Your task to perform on an android device: change timer sound Image 0: 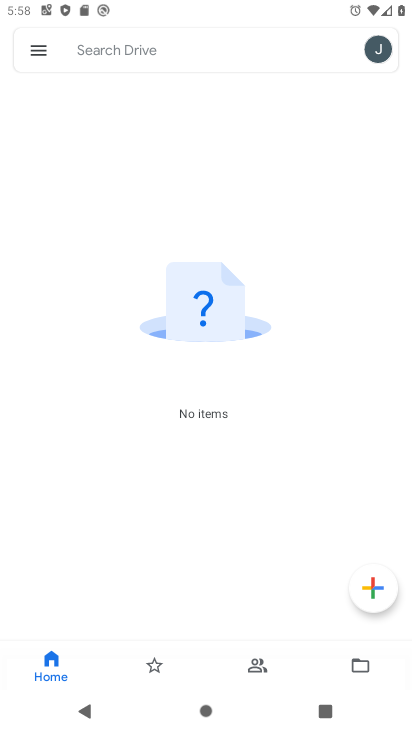
Step 0: press home button
Your task to perform on an android device: change timer sound Image 1: 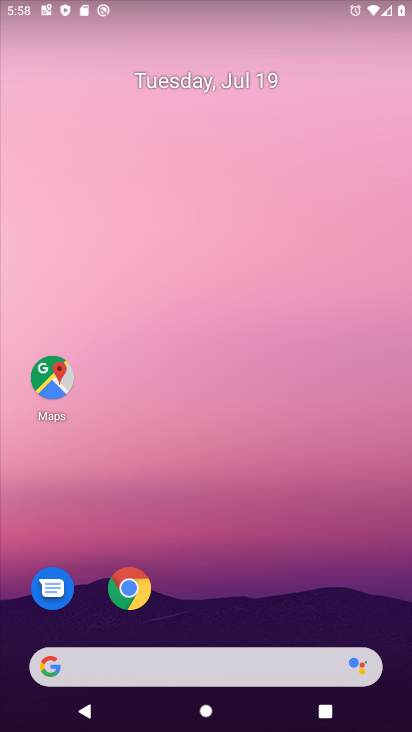
Step 1: drag from (202, 611) to (141, 4)
Your task to perform on an android device: change timer sound Image 2: 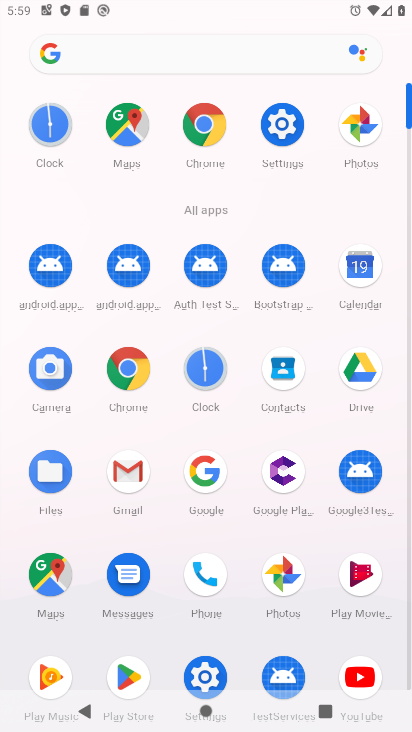
Step 2: click (199, 354)
Your task to perform on an android device: change timer sound Image 3: 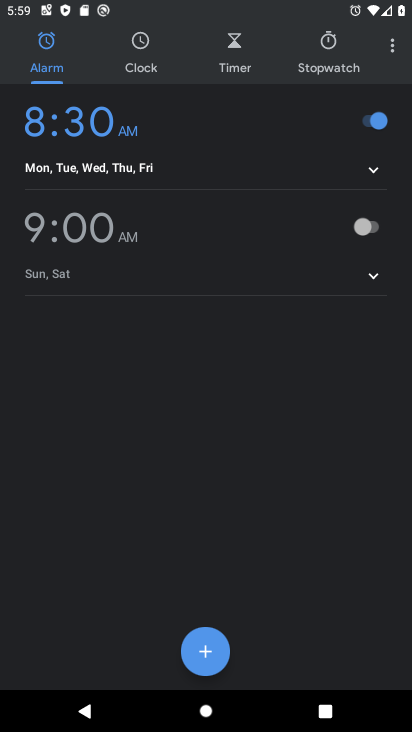
Step 3: click (395, 59)
Your task to perform on an android device: change timer sound Image 4: 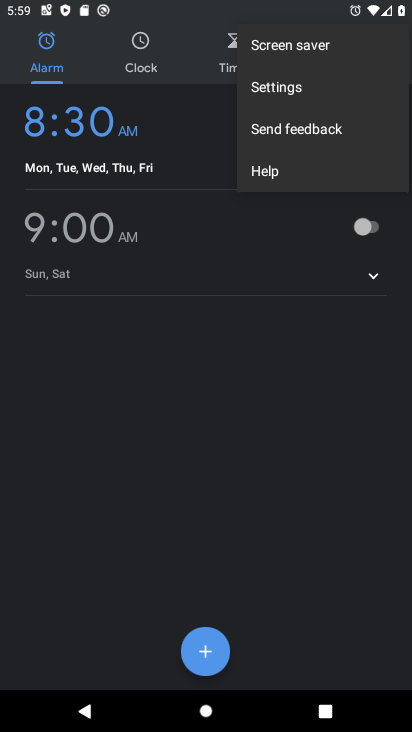
Step 4: click (320, 90)
Your task to perform on an android device: change timer sound Image 5: 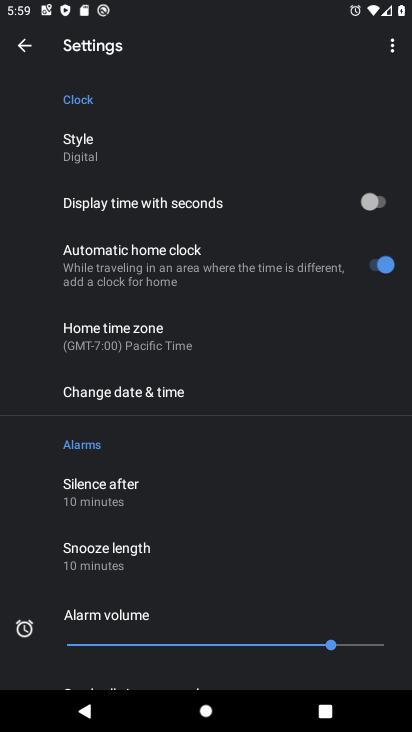
Step 5: click (301, 96)
Your task to perform on an android device: change timer sound Image 6: 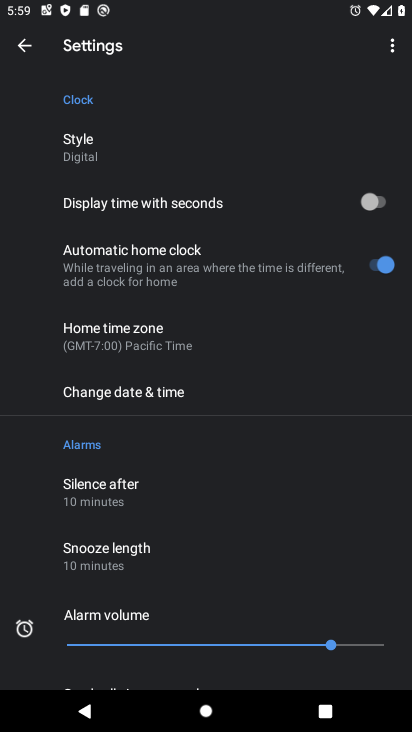
Step 6: drag from (181, 577) to (225, 406)
Your task to perform on an android device: change timer sound Image 7: 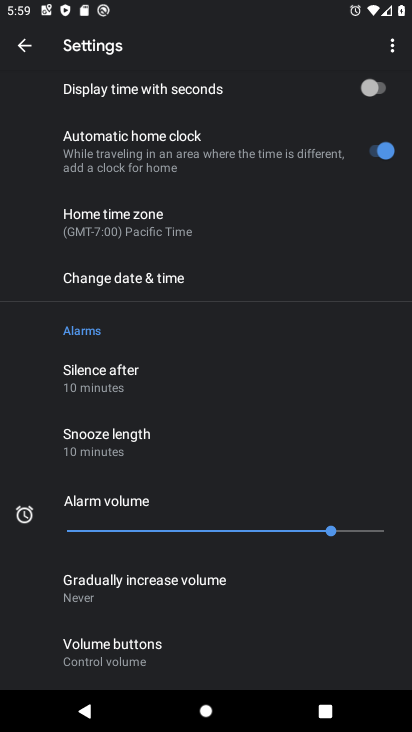
Step 7: drag from (166, 620) to (298, 87)
Your task to perform on an android device: change timer sound Image 8: 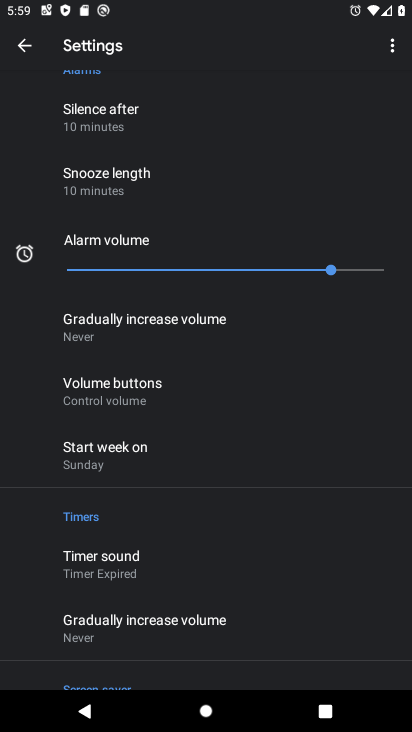
Step 8: click (152, 579)
Your task to perform on an android device: change timer sound Image 9: 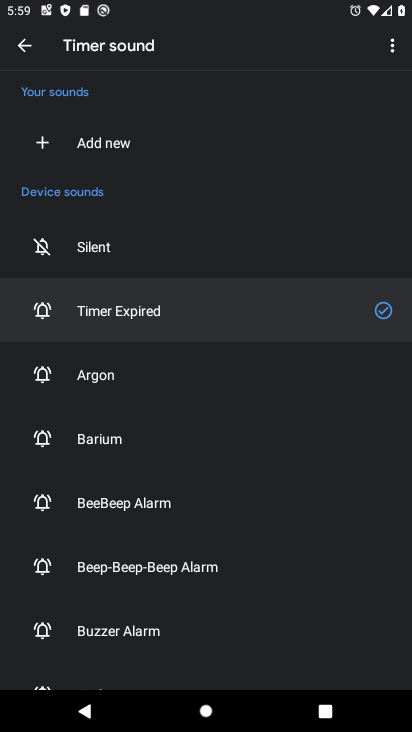
Step 9: click (137, 609)
Your task to perform on an android device: change timer sound Image 10: 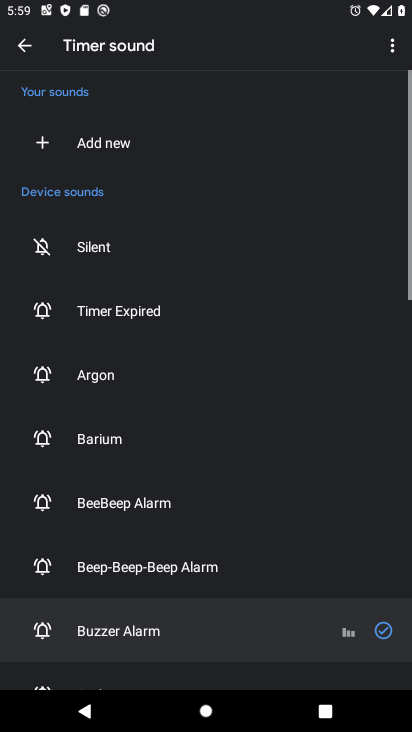
Step 10: task complete